Your task to perform on an android device: What's on my calendar tomorrow? Image 0: 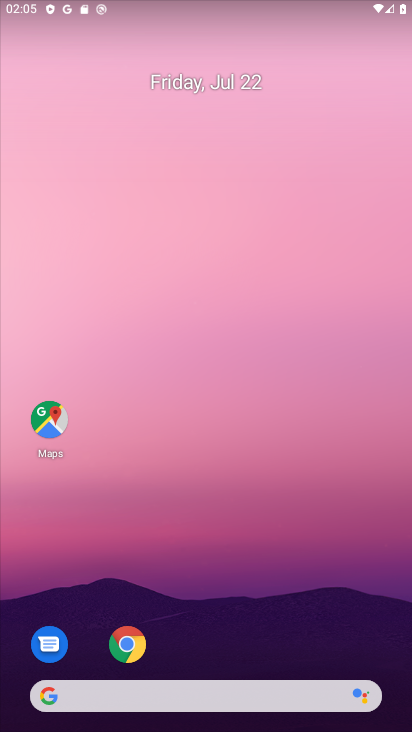
Step 0: drag from (204, 600) to (303, 60)
Your task to perform on an android device: What's on my calendar tomorrow? Image 1: 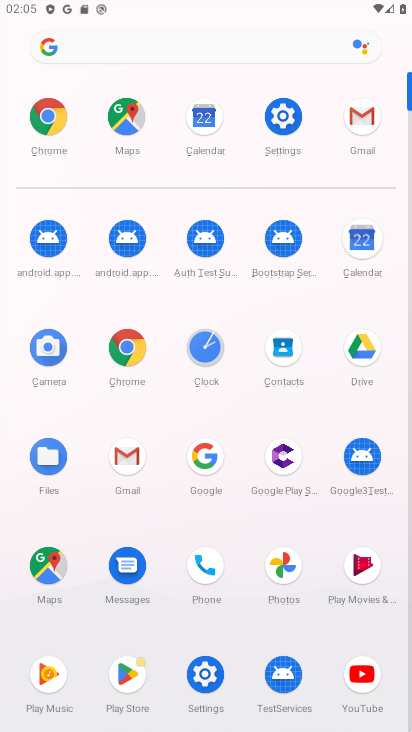
Step 1: click (357, 252)
Your task to perform on an android device: What's on my calendar tomorrow? Image 2: 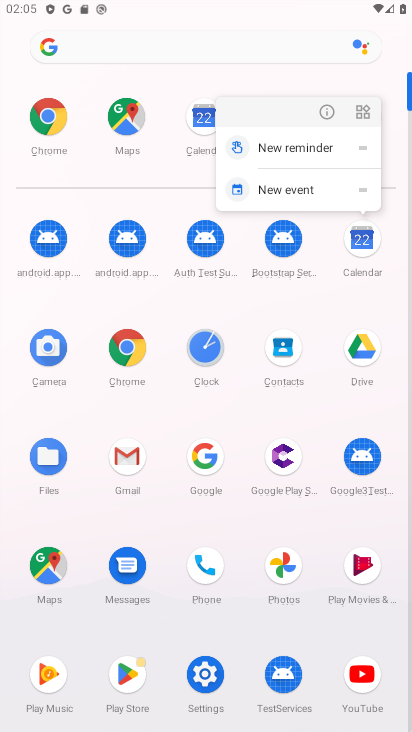
Step 2: click (357, 252)
Your task to perform on an android device: What's on my calendar tomorrow? Image 3: 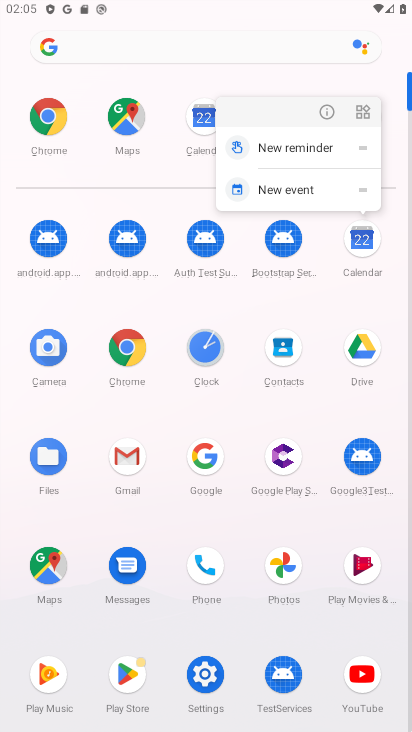
Step 3: click (357, 252)
Your task to perform on an android device: What's on my calendar tomorrow? Image 4: 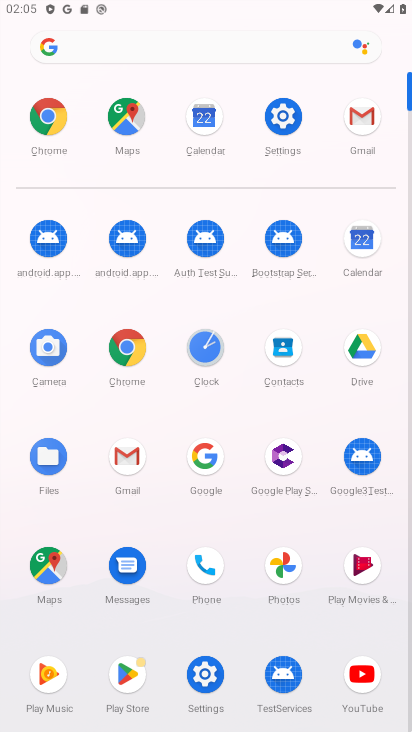
Step 4: click (357, 252)
Your task to perform on an android device: What's on my calendar tomorrow? Image 5: 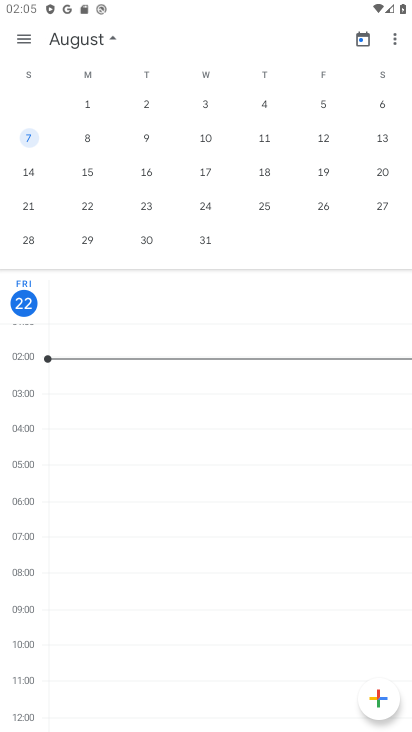
Step 5: drag from (120, 74) to (351, 81)
Your task to perform on an android device: What's on my calendar tomorrow? Image 6: 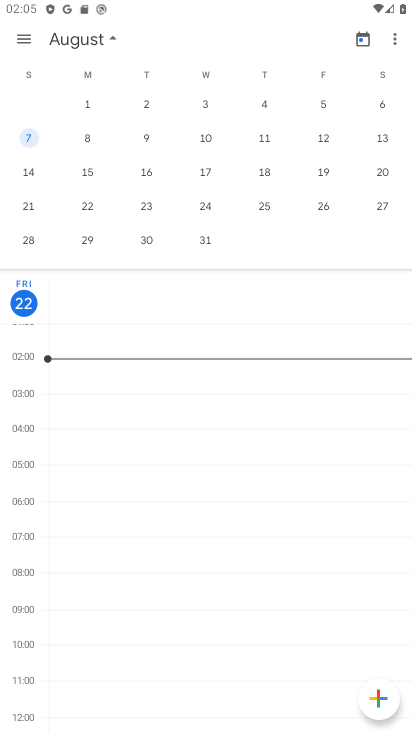
Step 6: drag from (129, 187) to (404, 173)
Your task to perform on an android device: What's on my calendar tomorrow? Image 7: 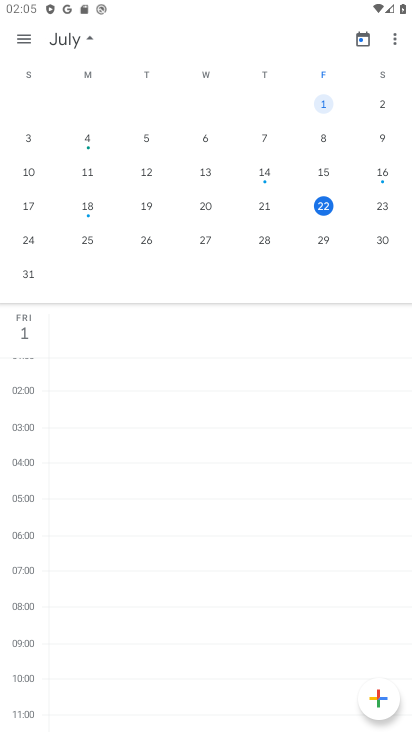
Step 7: click (382, 204)
Your task to perform on an android device: What's on my calendar tomorrow? Image 8: 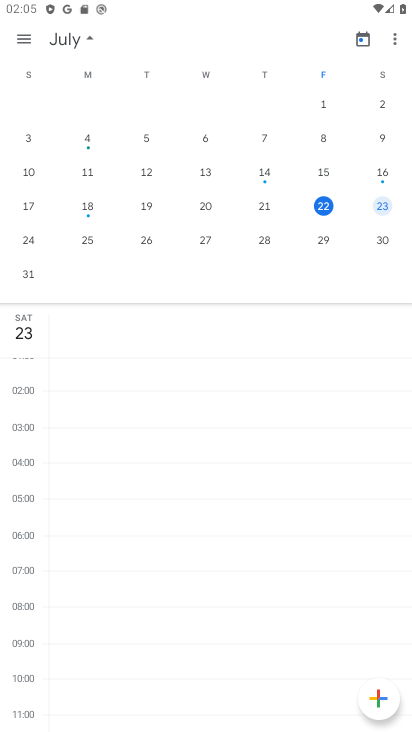
Step 8: task complete